Your task to perform on an android device: create a new album in the google photos Image 0: 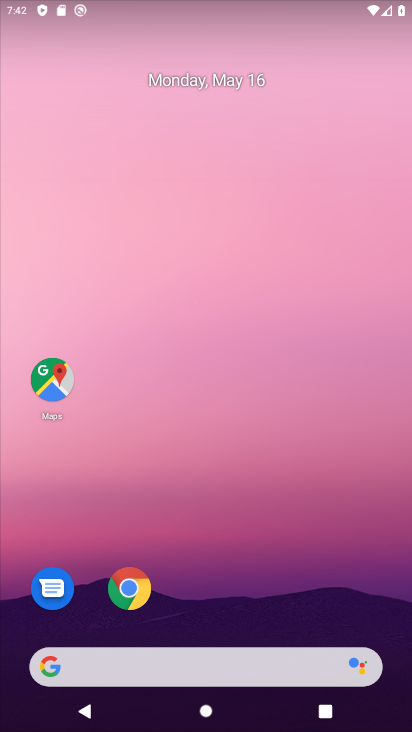
Step 0: drag from (324, 618) to (274, 10)
Your task to perform on an android device: create a new album in the google photos Image 1: 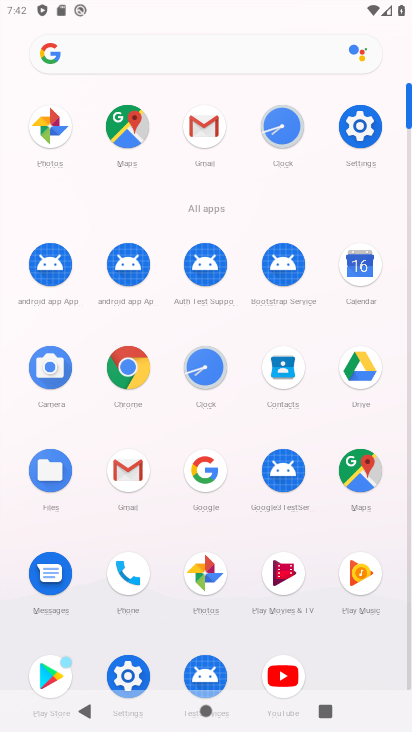
Step 1: click (210, 582)
Your task to perform on an android device: create a new album in the google photos Image 2: 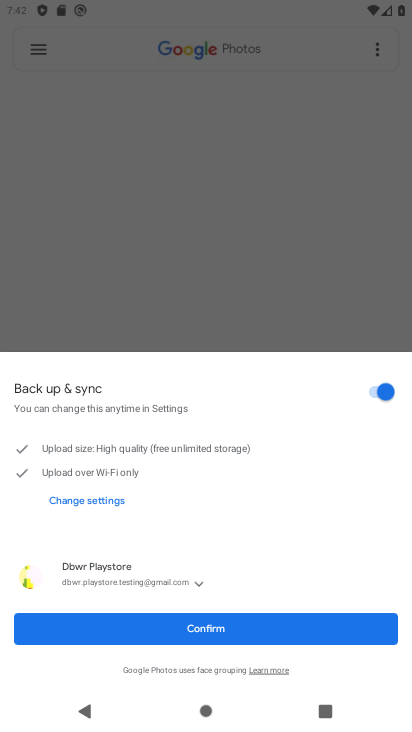
Step 2: click (307, 619)
Your task to perform on an android device: create a new album in the google photos Image 3: 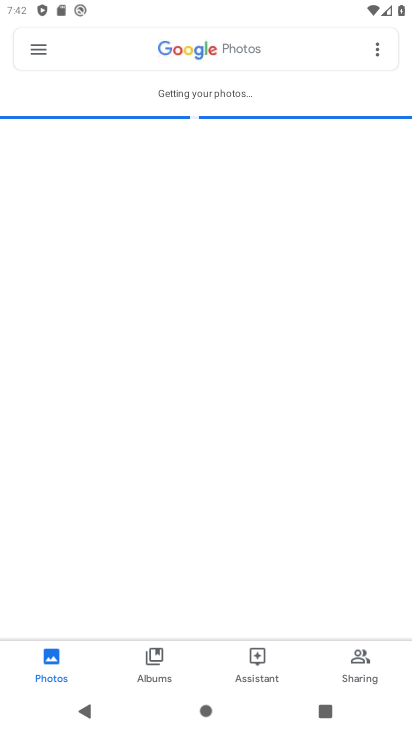
Step 3: click (155, 658)
Your task to perform on an android device: create a new album in the google photos Image 4: 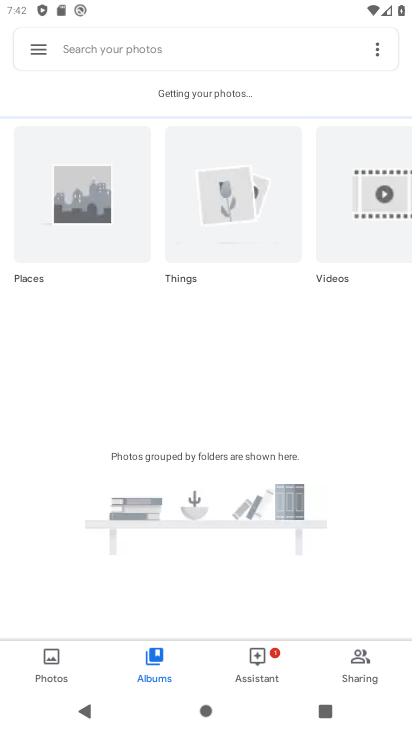
Step 4: click (383, 48)
Your task to perform on an android device: create a new album in the google photos Image 5: 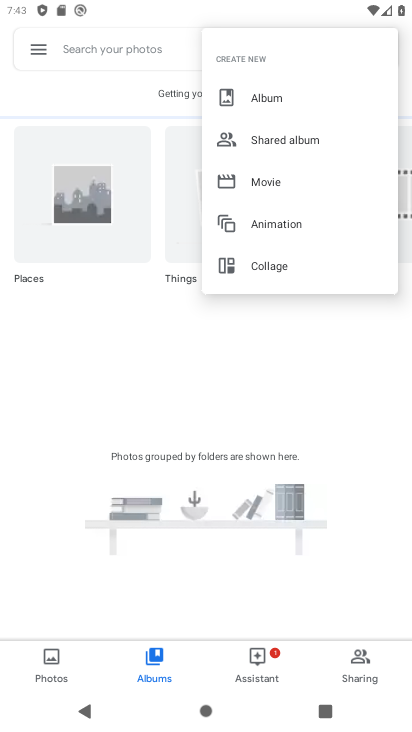
Step 5: click (275, 95)
Your task to perform on an android device: create a new album in the google photos Image 6: 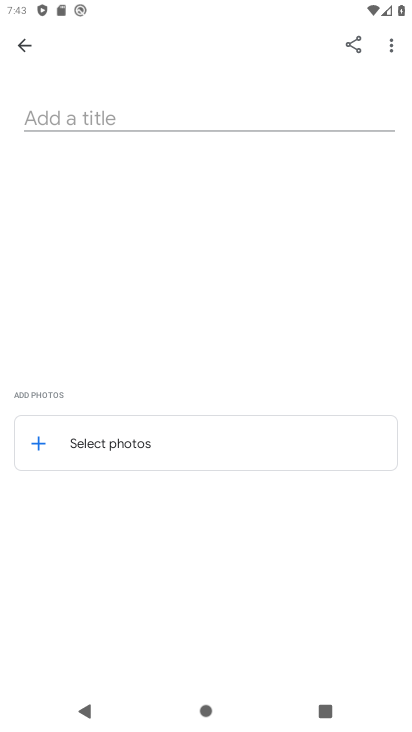
Step 6: click (107, 113)
Your task to perform on an android device: create a new album in the google photos Image 7: 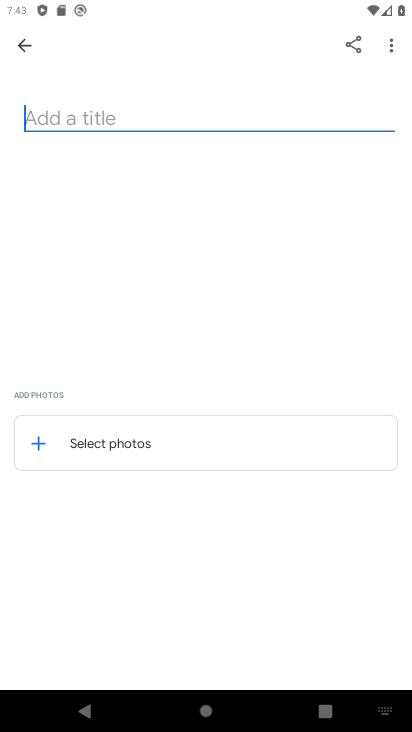
Step 7: type "papaji"
Your task to perform on an android device: create a new album in the google photos Image 8: 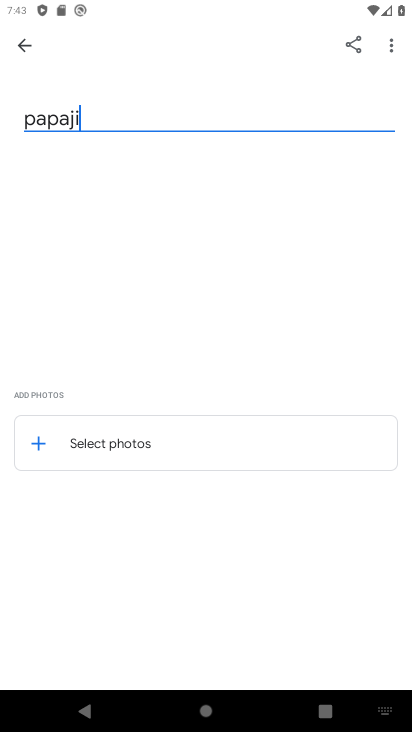
Step 8: click (87, 436)
Your task to perform on an android device: create a new album in the google photos Image 9: 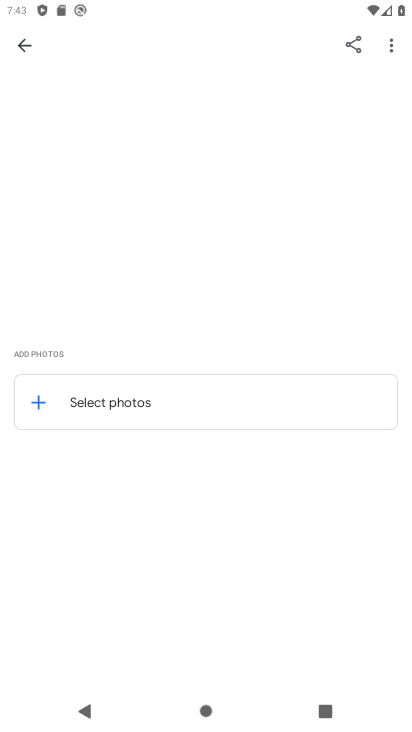
Step 9: click (38, 406)
Your task to perform on an android device: create a new album in the google photos Image 10: 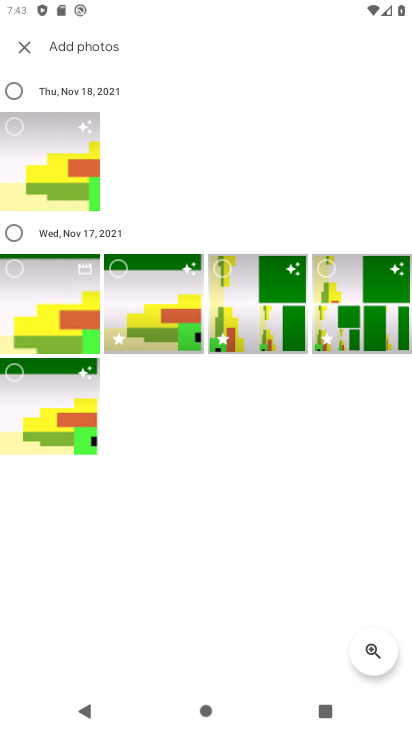
Step 10: click (19, 126)
Your task to perform on an android device: create a new album in the google photos Image 11: 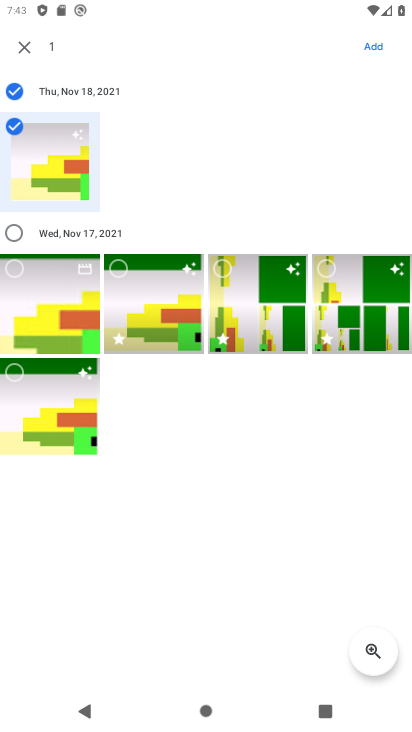
Step 11: click (375, 42)
Your task to perform on an android device: create a new album in the google photos Image 12: 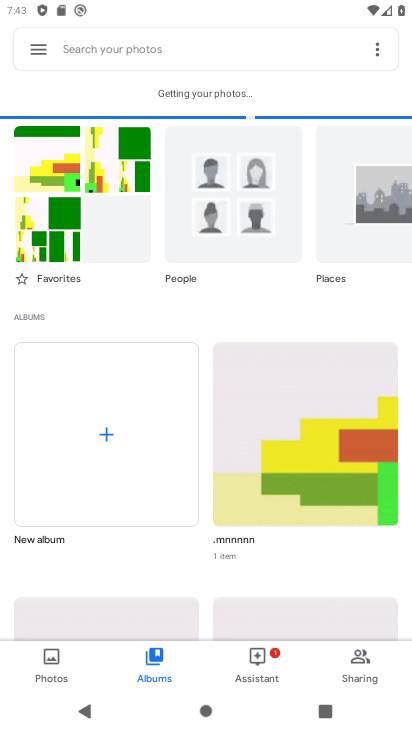
Step 12: task complete